Your task to perform on an android device: turn off sleep mode Image 0: 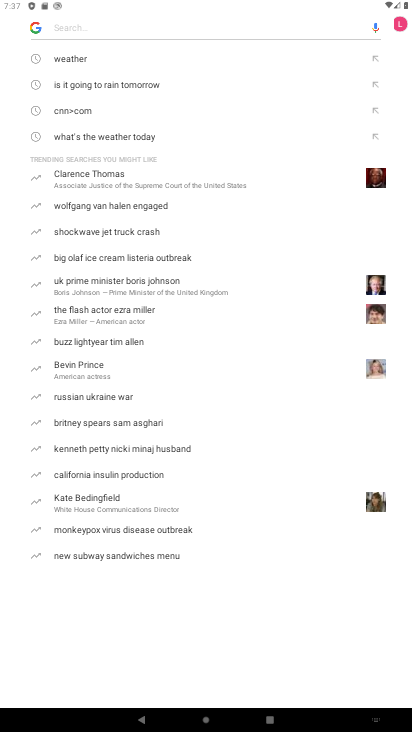
Step 0: press home button
Your task to perform on an android device: turn off sleep mode Image 1: 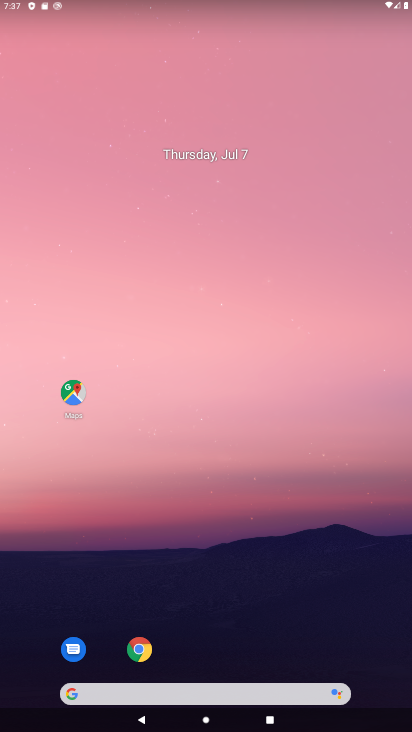
Step 1: drag from (213, 606) to (215, 17)
Your task to perform on an android device: turn off sleep mode Image 2: 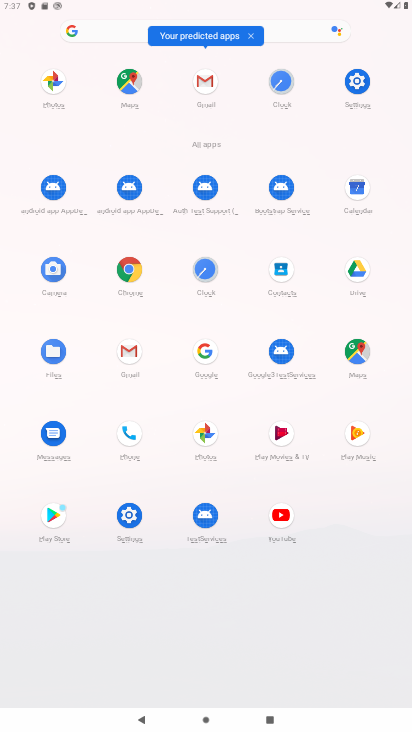
Step 2: click (127, 517)
Your task to perform on an android device: turn off sleep mode Image 3: 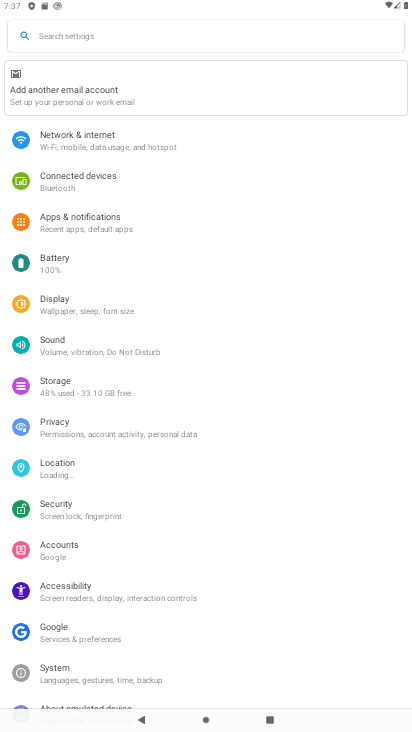
Step 3: click (219, 40)
Your task to perform on an android device: turn off sleep mode Image 4: 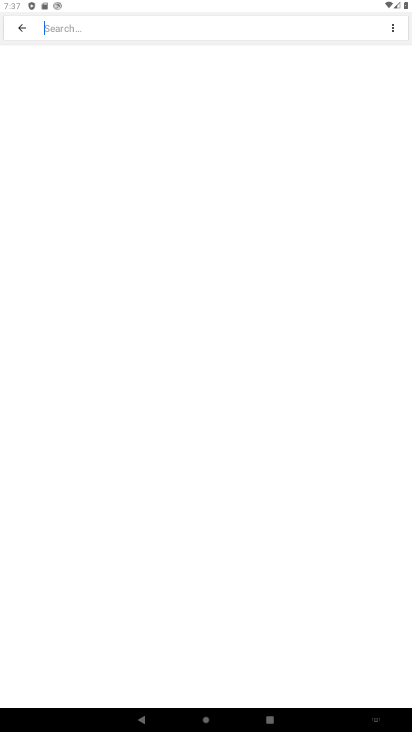
Step 4: type "sleep mode"
Your task to perform on an android device: turn off sleep mode Image 5: 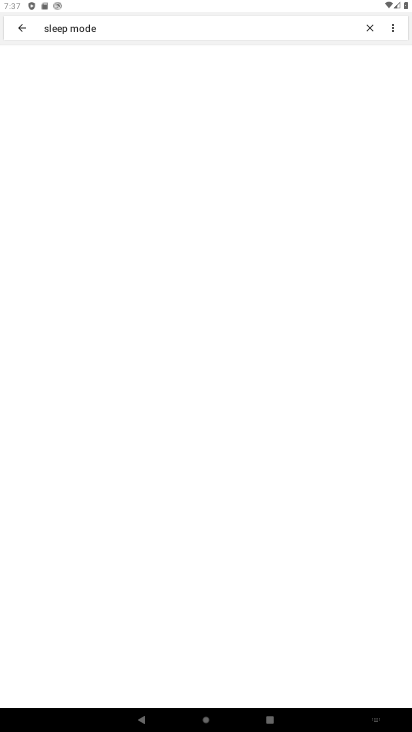
Step 5: task complete